Your task to perform on an android device: turn on notifications settings in the gmail app Image 0: 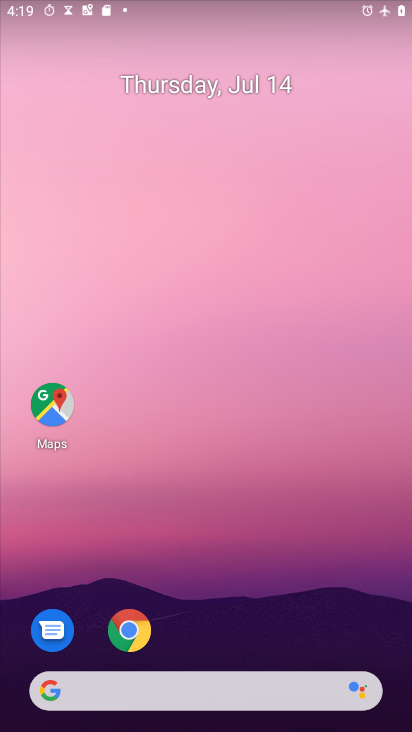
Step 0: drag from (211, 725) to (217, 39)
Your task to perform on an android device: turn on notifications settings in the gmail app Image 1: 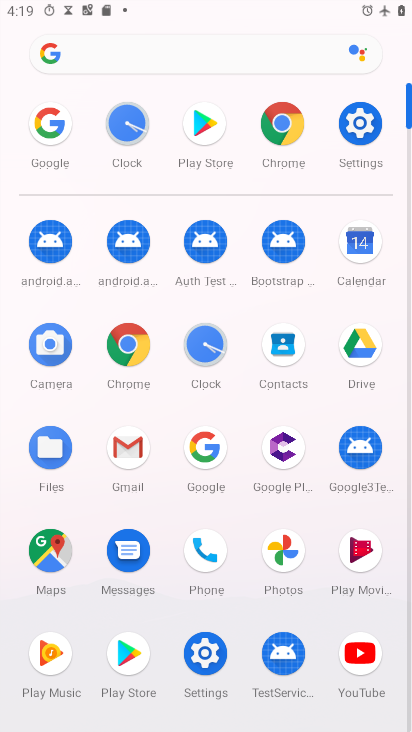
Step 1: click (127, 448)
Your task to perform on an android device: turn on notifications settings in the gmail app Image 2: 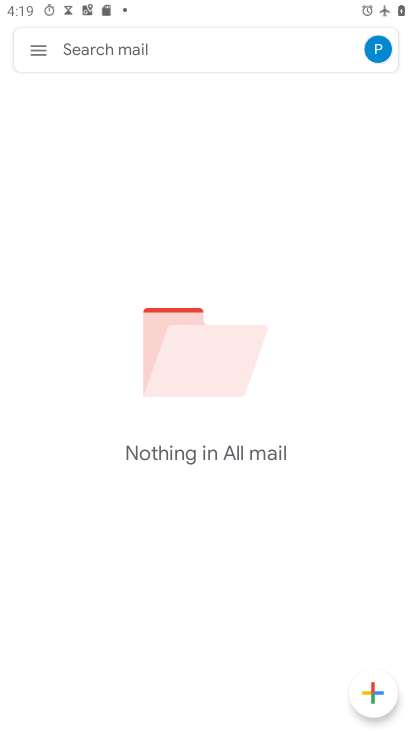
Step 2: click (38, 46)
Your task to perform on an android device: turn on notifications settings in the gmail app Image 3: 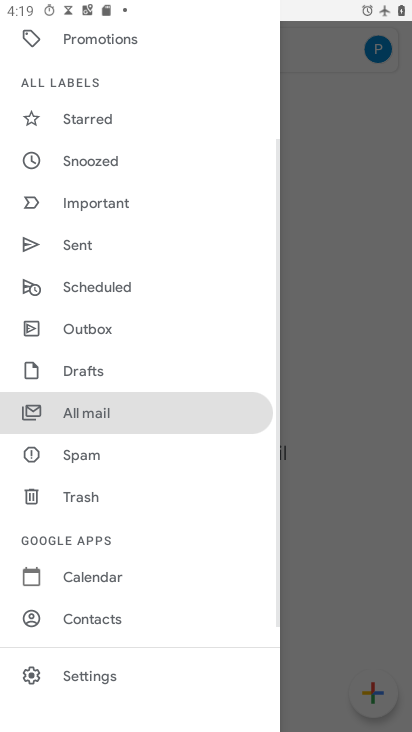
Step 3: click (67, 676)
Your task to perform on an android device: turn on notifications settings in the gmail app Image 4: 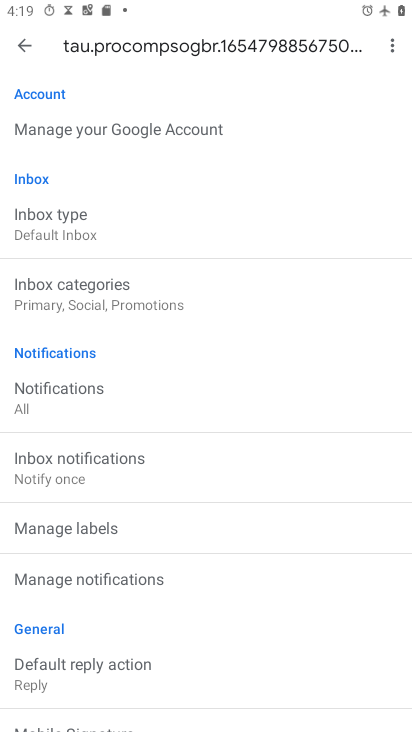
Step 4: task complete